Your task to perform on an android device: Show me recent news Image 0: 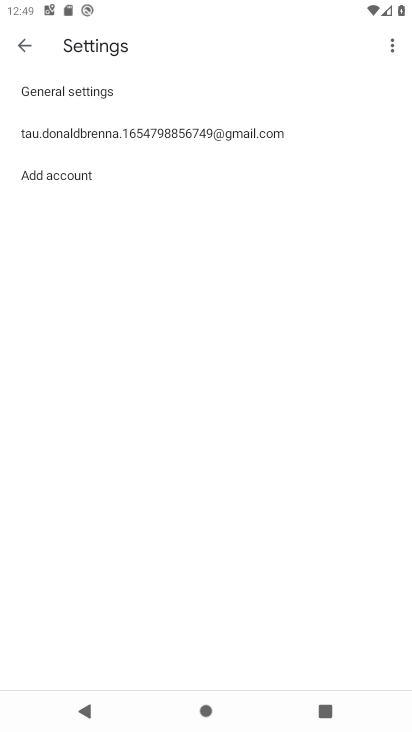
Step 0: press home button
Your task to perform on an android device: Show me recent news Image 1: 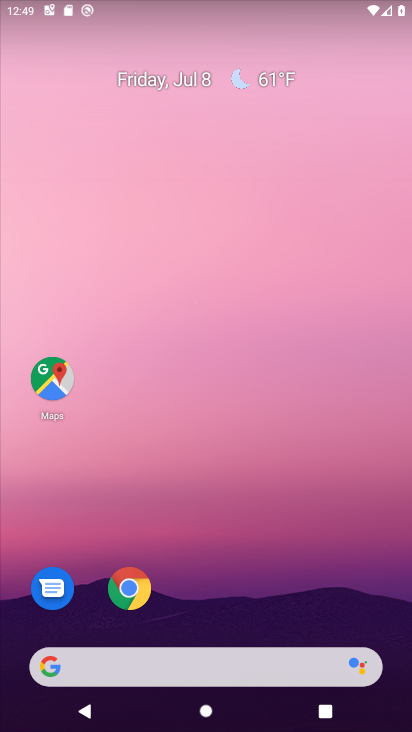
Step 1: click (165, 661)
Your task to perform on an android device: Show me recent news Image 2: 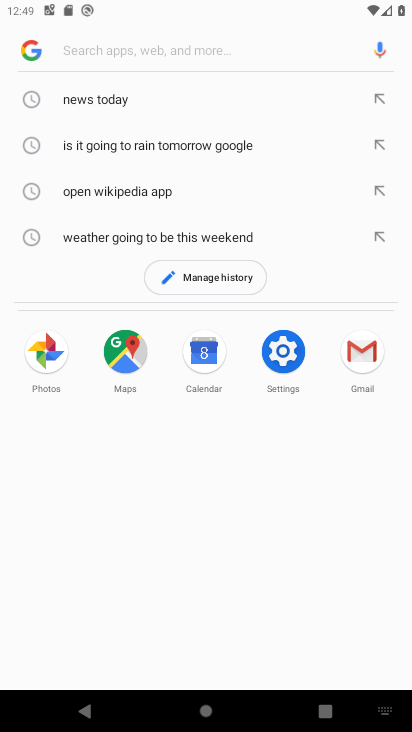
Step 2: type "recent news"
Your task to perform on an android device: Show me recent news Image 3: 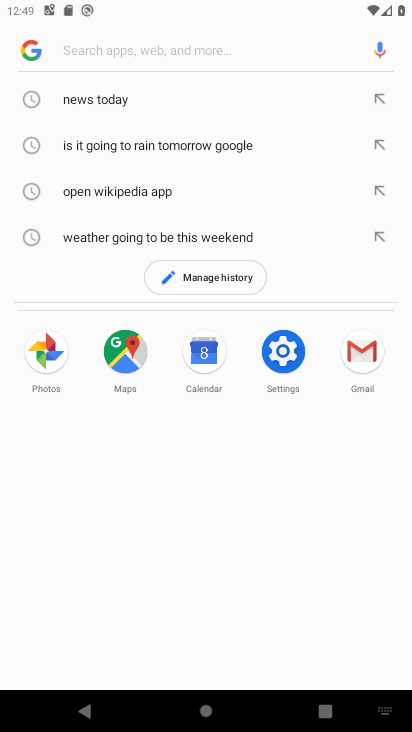
Step 3: click (83, 50)
Your task to perform on an android device: Show me recent news Image 4: 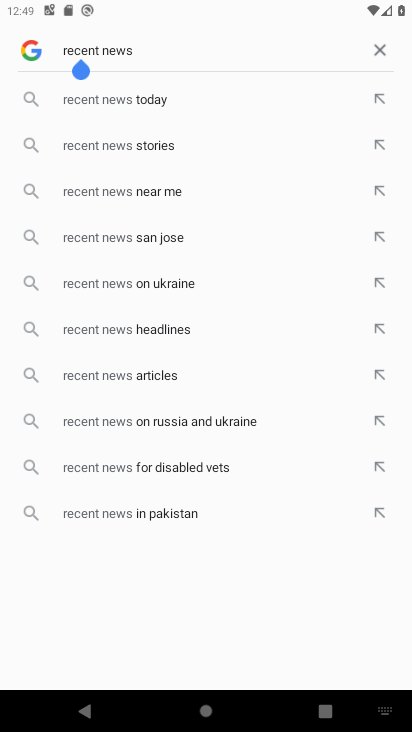
Step 4: press enter
Your task to perform on an android device: Show me recent news Image 5: 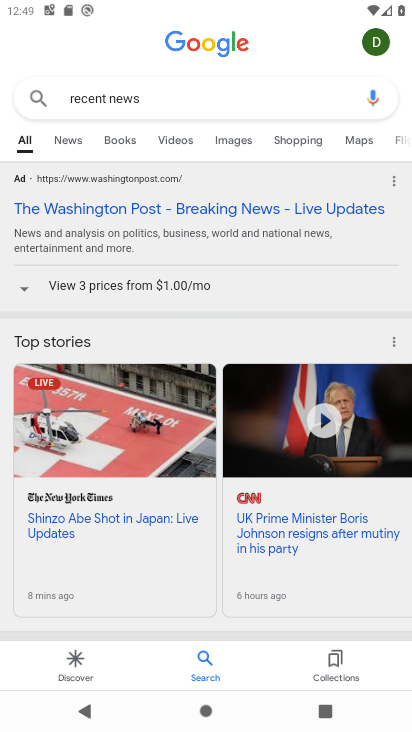
Step 5: task complete